Your task to perform on an android device: Search for sushi restaurants on Maps Image 0: 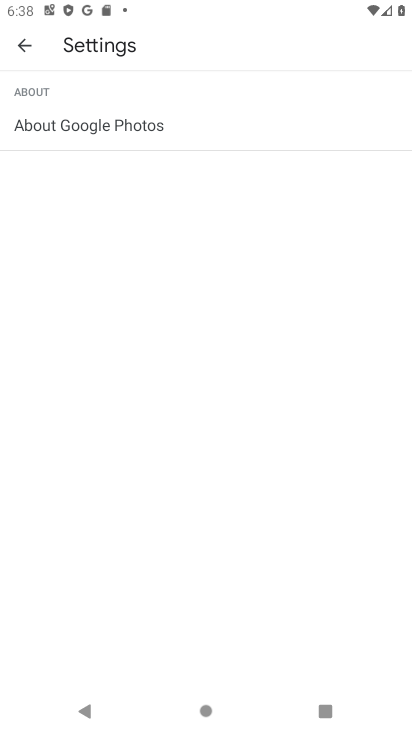
Step 0: press home button
Your task to perform on an android device: Search for sushi restaurants on Maps Image 1: 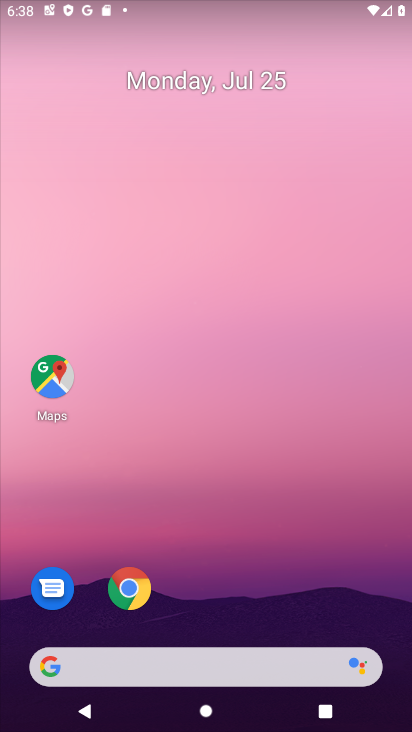
Step 1: click (58, 387)
Your task to perform on an android device: Search for sushi restaurants on Maps Image 2: 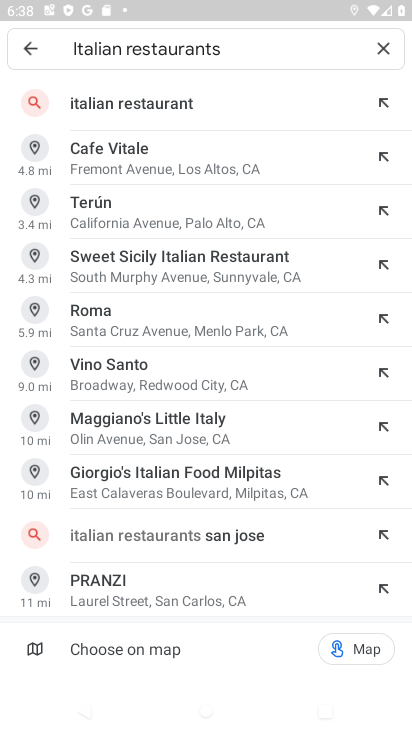
Step 2: click (382, 44)
Your task to perform on an android device: Search for sushi restaurants on Maps Image 3: 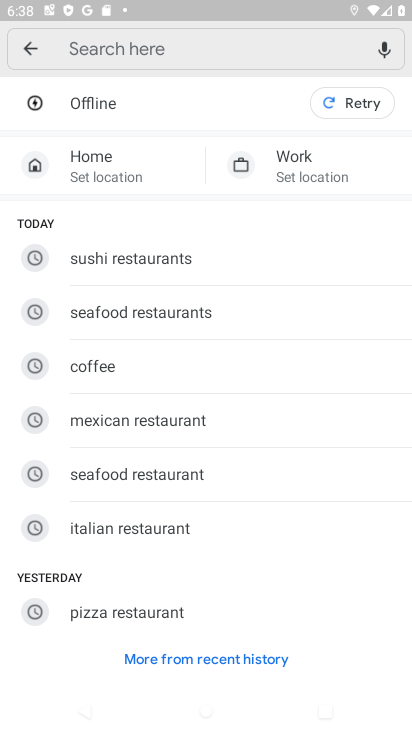
Step 3: type "sushi restaurants"
Your task to perform on an android device: Search for sushi restaurants on Maps Image 4: 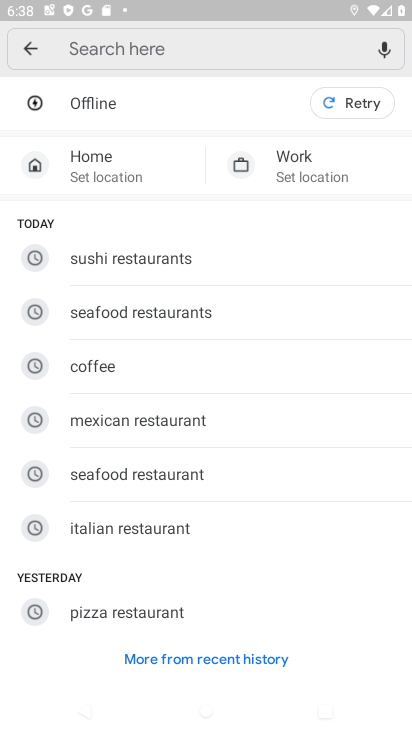
Step 4: press enter
Your task to perform on an android device: Search for sushi restaurants on Maps Image 5: 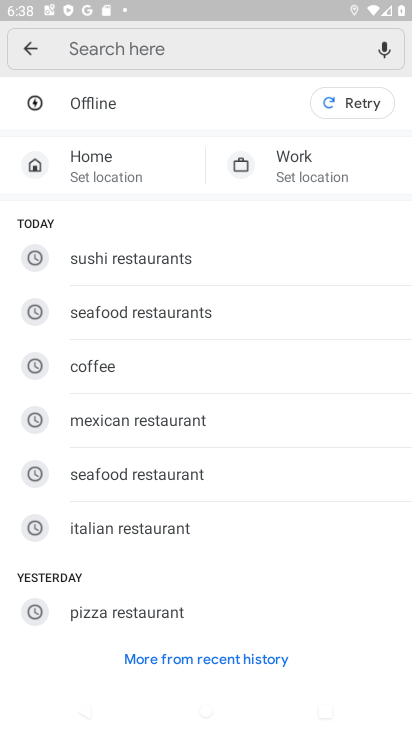
Step 5: click (163, 36)
Your task to perform on an android device: Search for sushi restaurants on Maps Image 6: 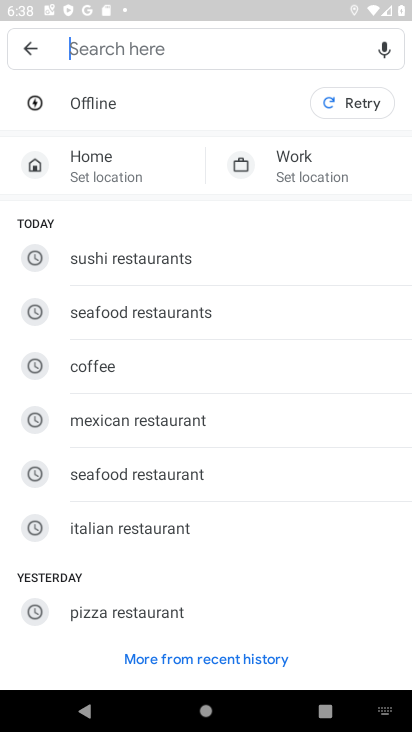
Step 6: type "sushi restaurants"
Your task to perform on an android device: Search for sushi restaurants on Maps Image 7: 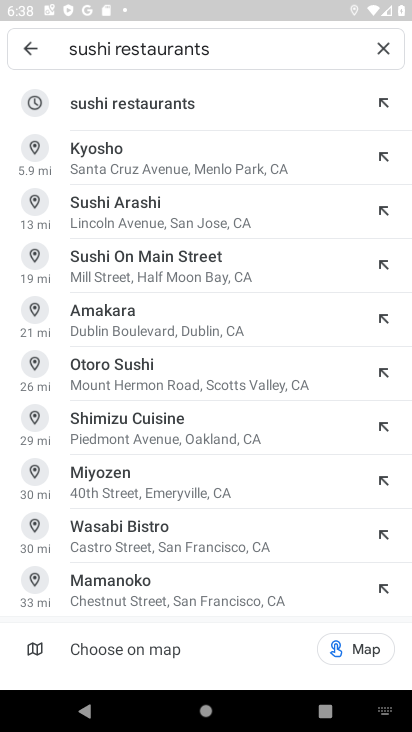
Step 7: press enter
Your task to perform on an android device: Search for sushi restaurants on Maps Image 8: 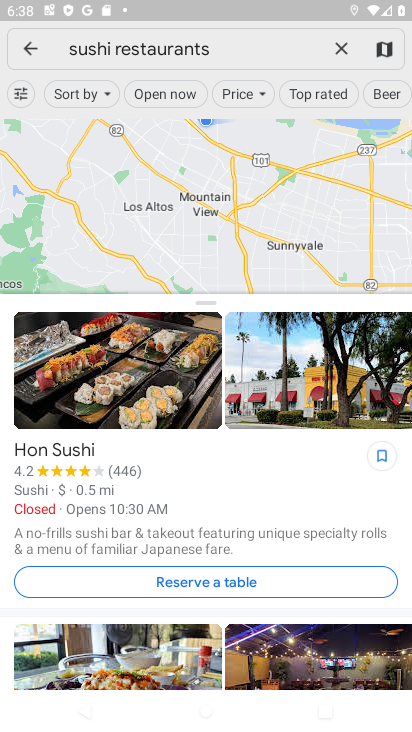
Step 8: task complete